Your task to perform on an android device: Go to CNN.com Image 0: 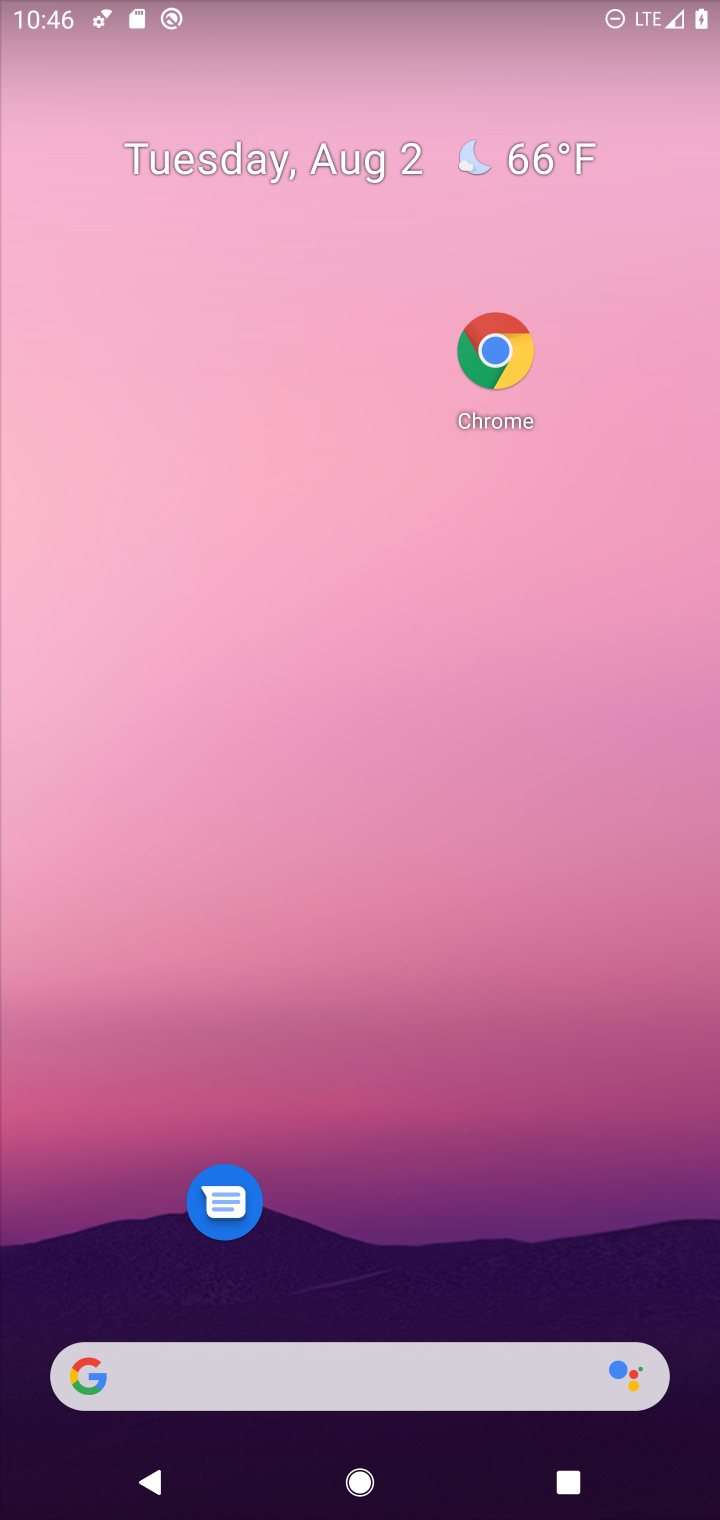
Step 0: click (499, 356)
Your task to perform on an android device: Go to CNN.com Image 1: 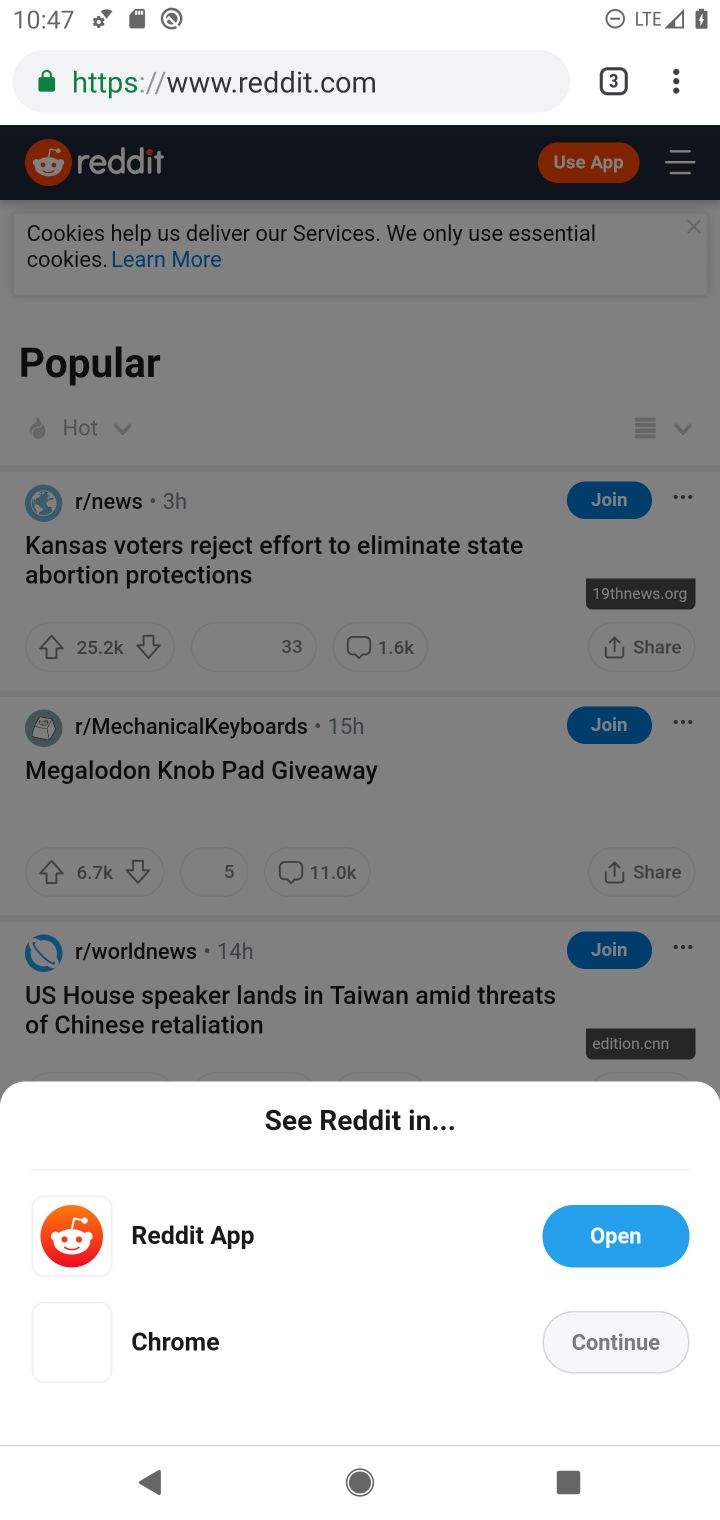
Step 1: click (338, 90)
Your task to perform on an android device: Go to CNN.com Image 2: 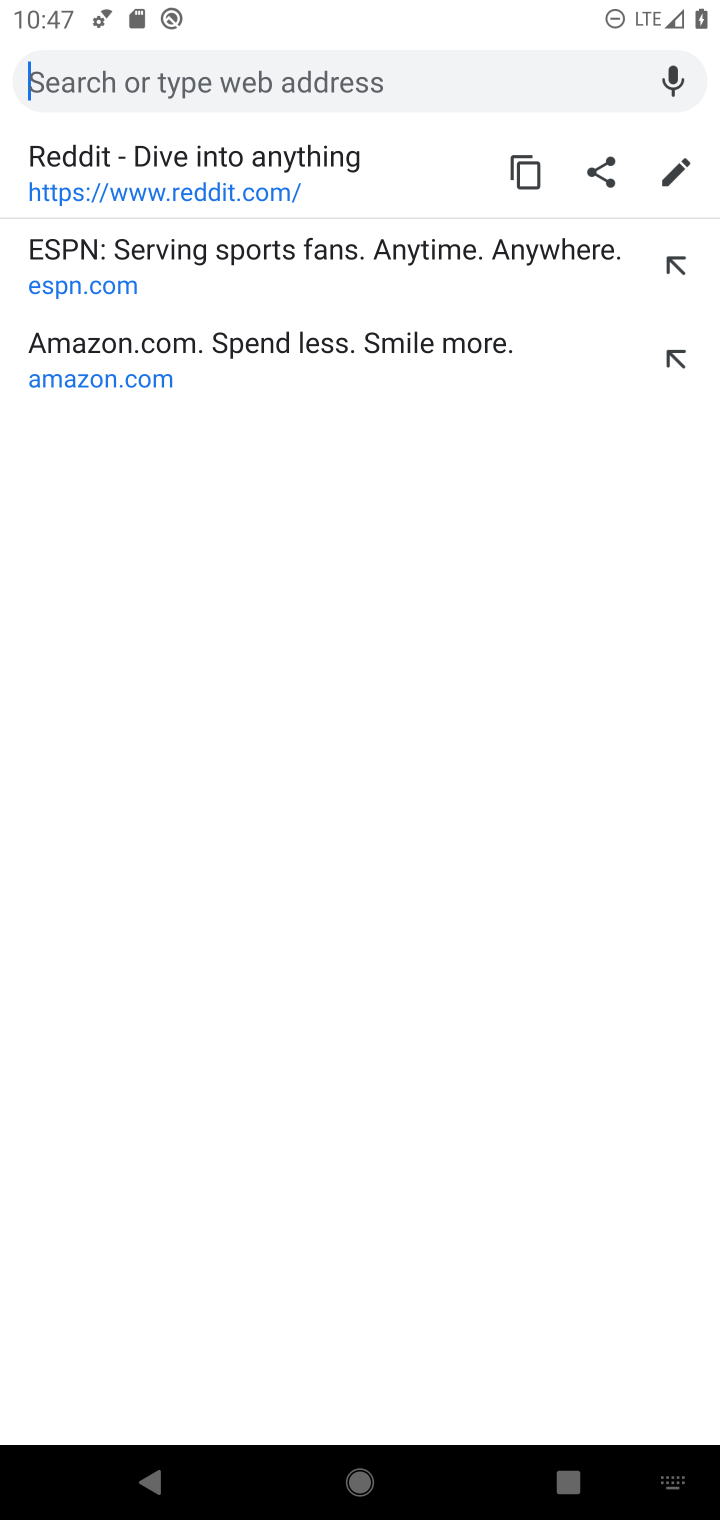
Step 2: type "cnn.com"
Your task to perform on an android device: Go to CNN.com Image 3: 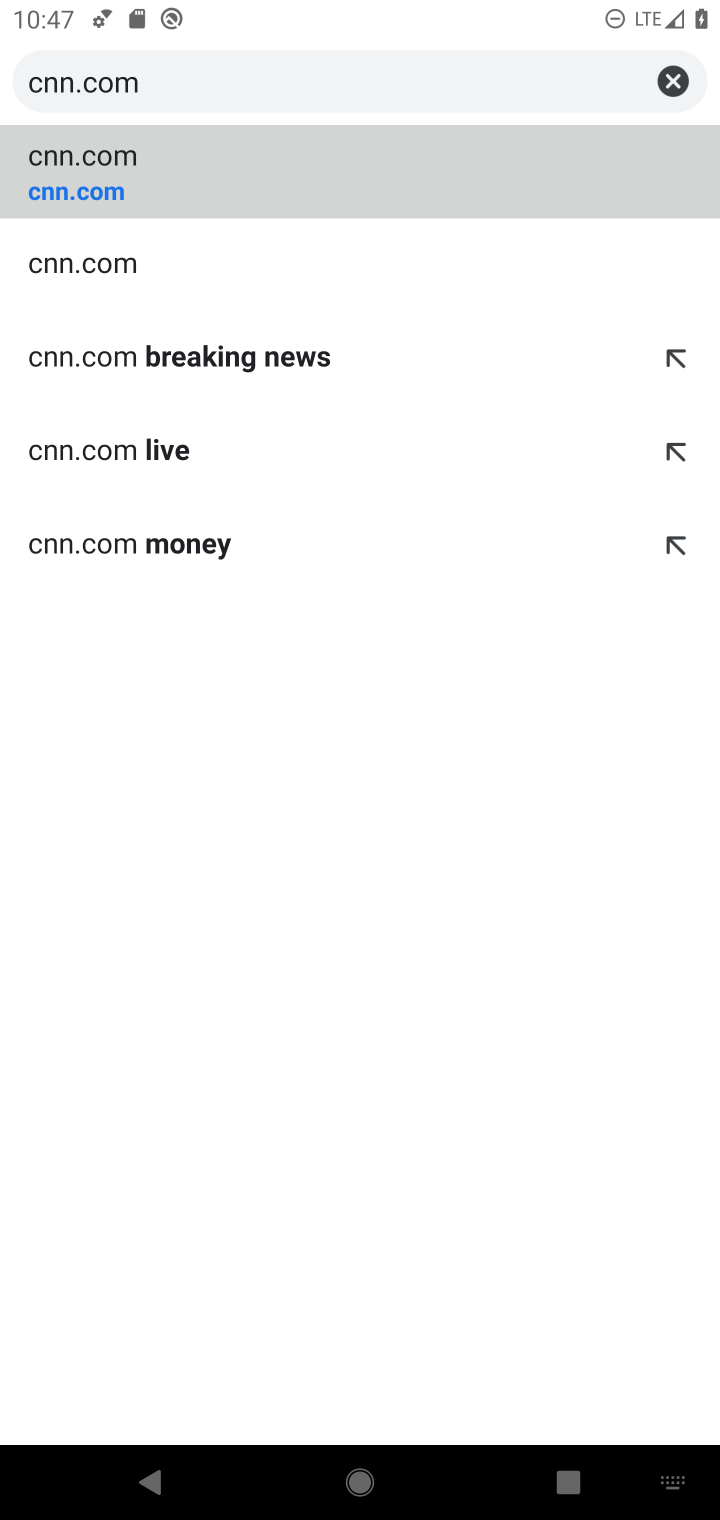
Step 3: click (68, 181)
Your task to perform on an android device: Go to CNN.com Image 4: 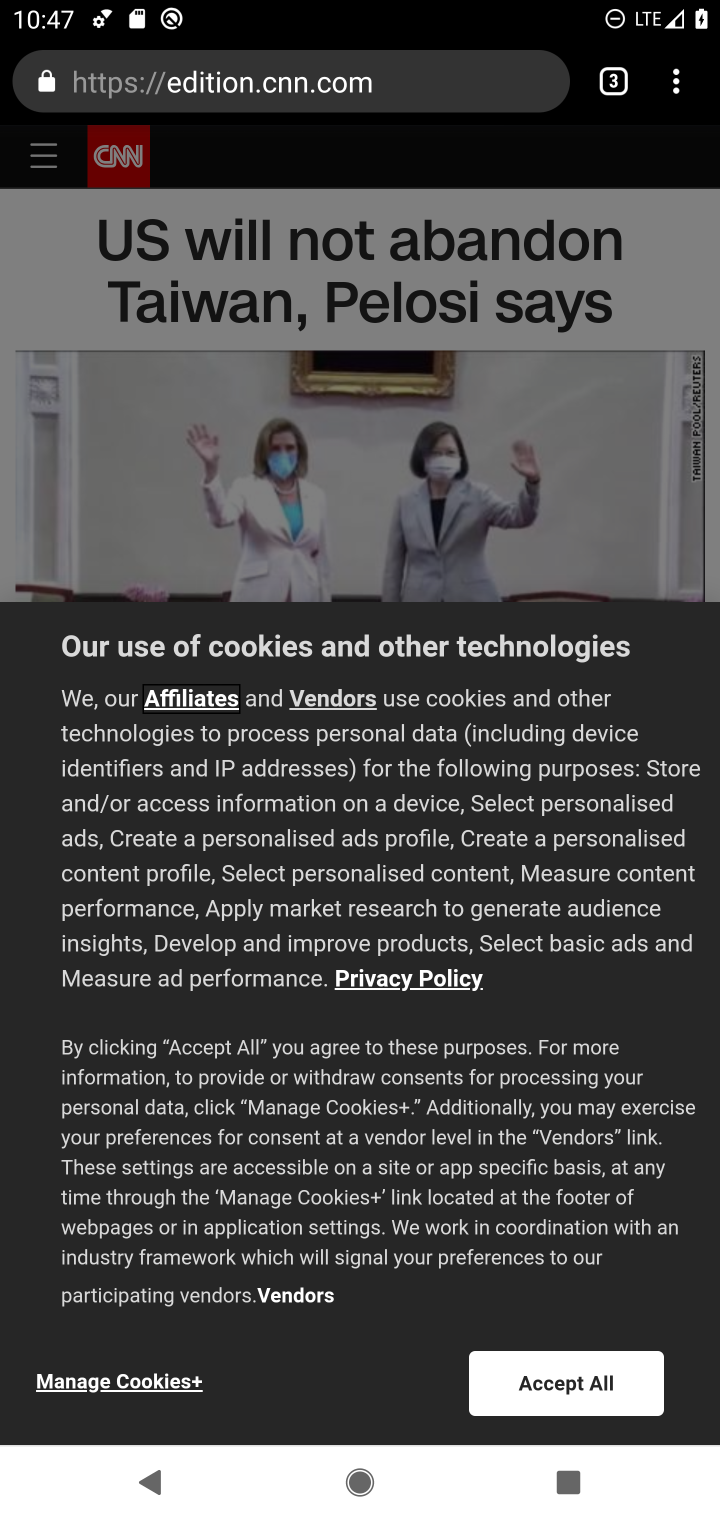
Step 4: task complete